Your task to perform on an android device: set default search engine in the chrome app Image 0: 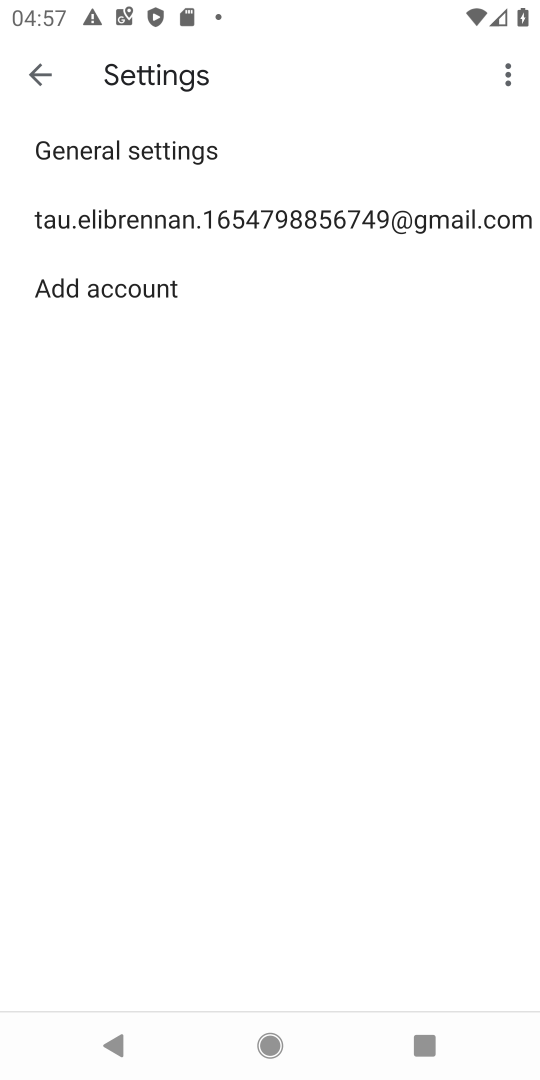
Step 0: press home button
Your task to perform on an android device: set default search engine in the chrome app Image 1: 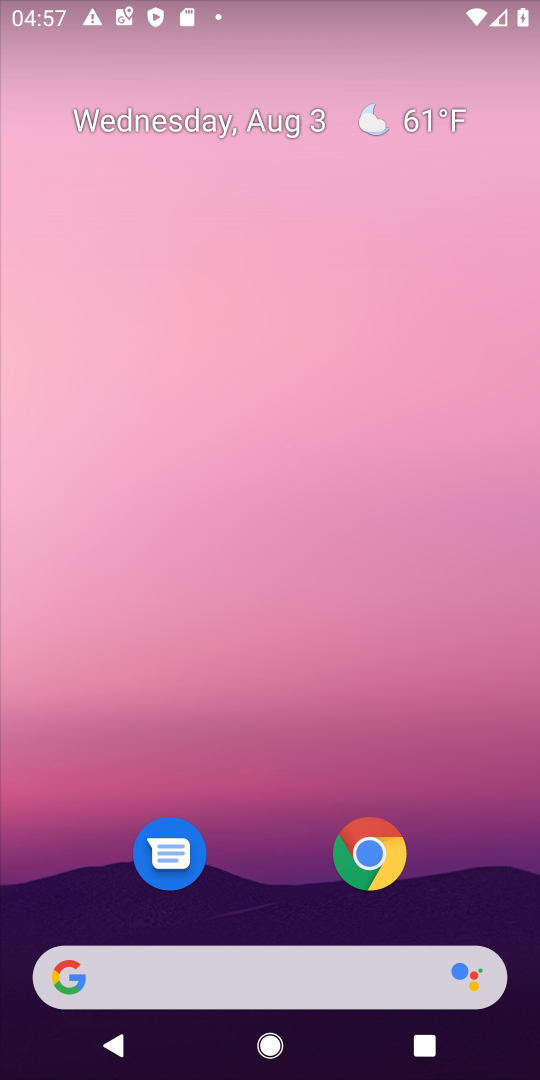
Step 1: click (375, 852)
Your task to perform on an android device: set default search engine in the chrome app Image 2: 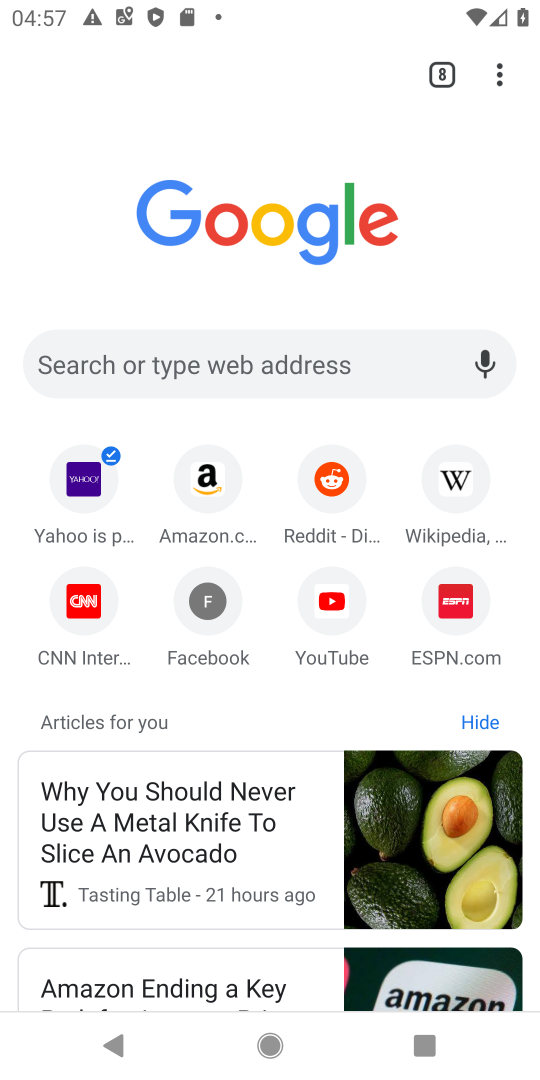
Step 2: click (501, 87)
Your task to perform on an android device: set default search engine in the chrome app Image 3: 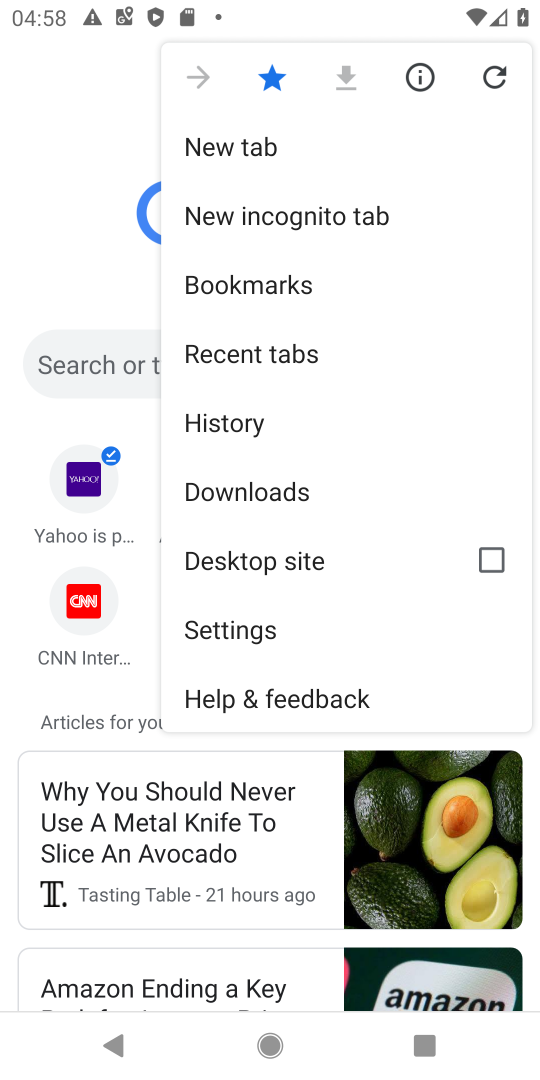
Step 3: click (233, 627)
Your task to perform on an android device: set default search engine in the chrome app Image 4: 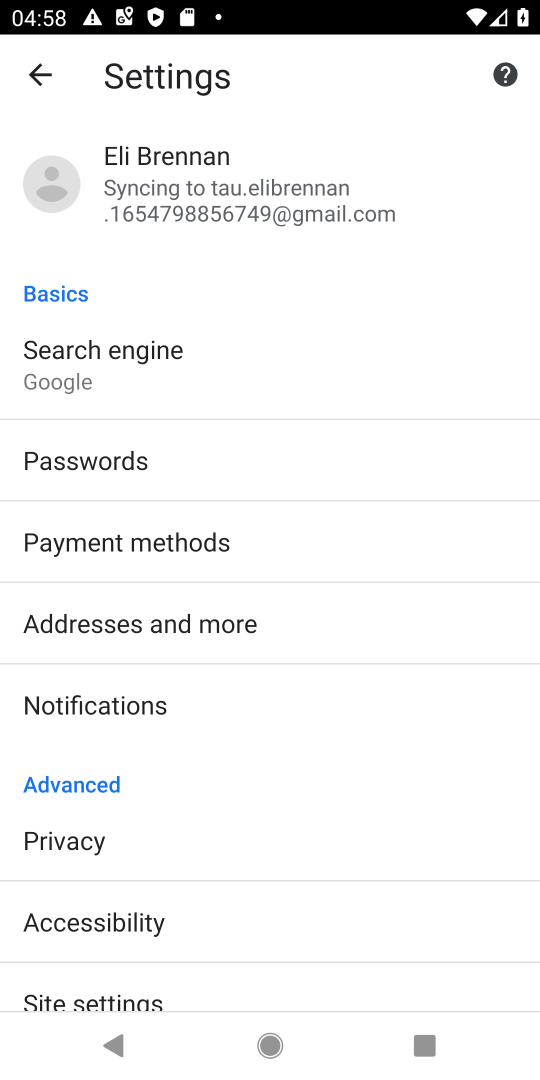
Step 4: click (54, 350)
Your task to perform on an android device: set default search engine in the chrome app Image 5: 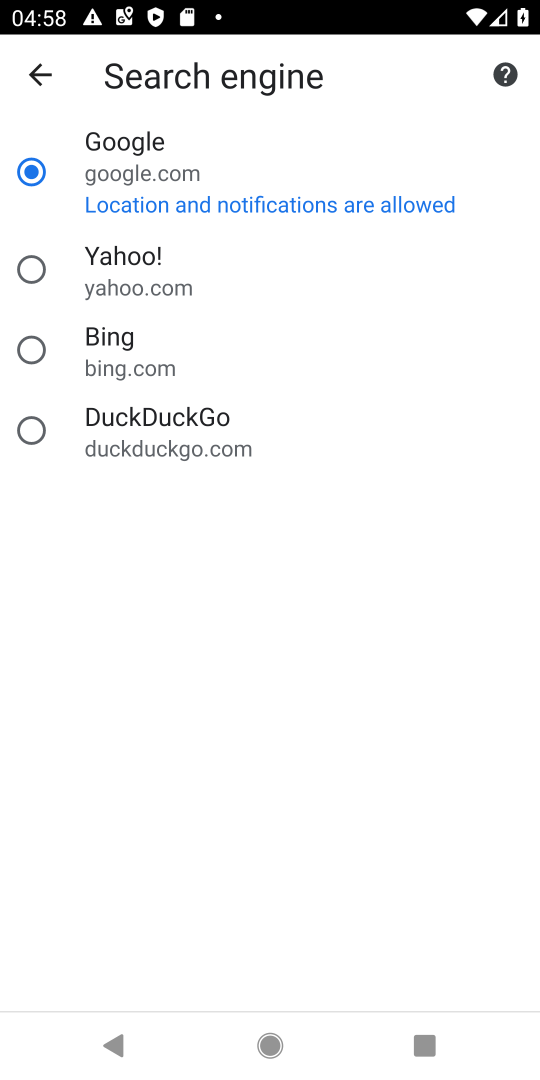
Step 5: click (28, 269)
Your task to perform on an android device: set default search engine in the chrome app Image 6: 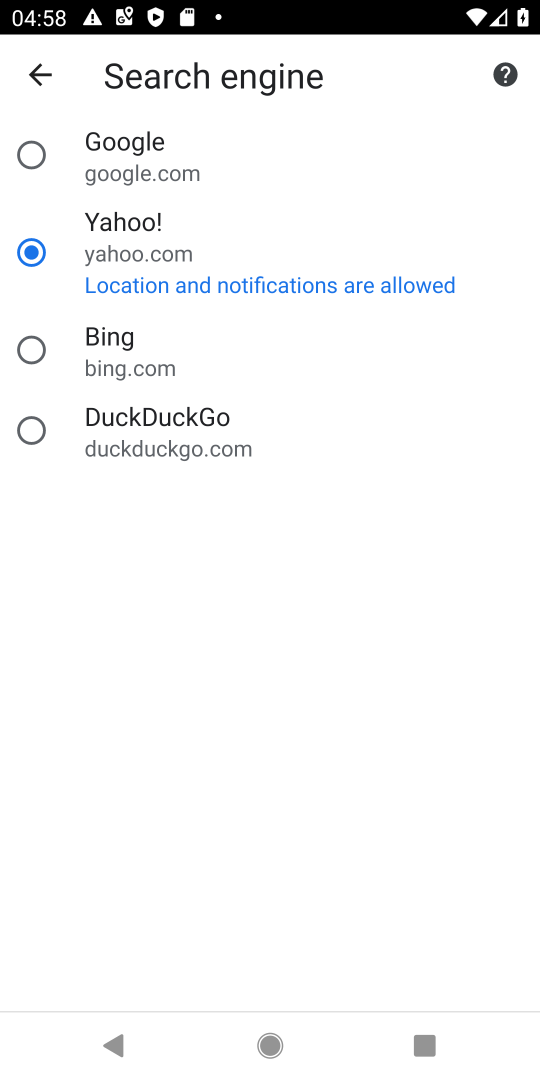
Step 6: task complete